Your task to perform on an android device: allow notifications from all sites in the chrome app Image 0: 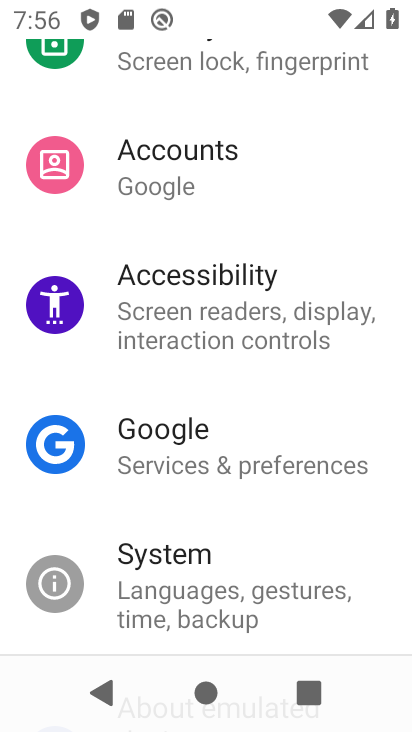
Step 0: press home button
Your task to perform on an android device: allow notifications from all sites in the chrome app Image 1: 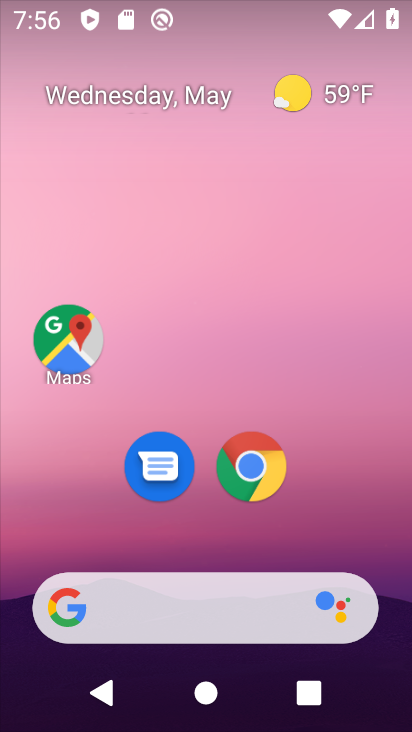
Step 1: drag from (329, 510) to (349, 168)
Your task to perform on an android device: allow notifications from all sites in the chrome app Image 2: 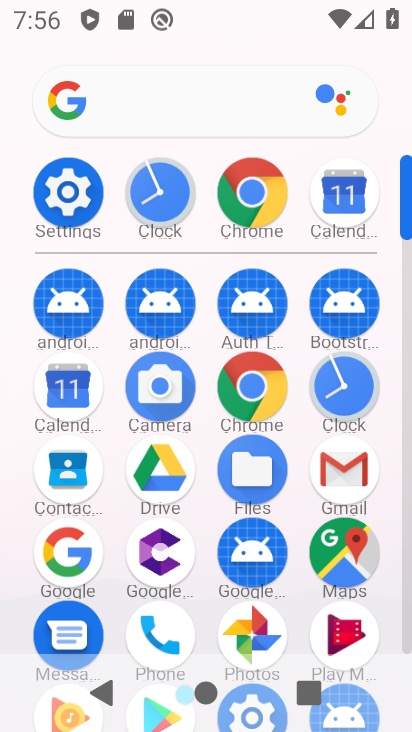
Step 2: click (238, 187)
Your task to perform on an android device: allow notifications from all sites in the chrome app Image 3: 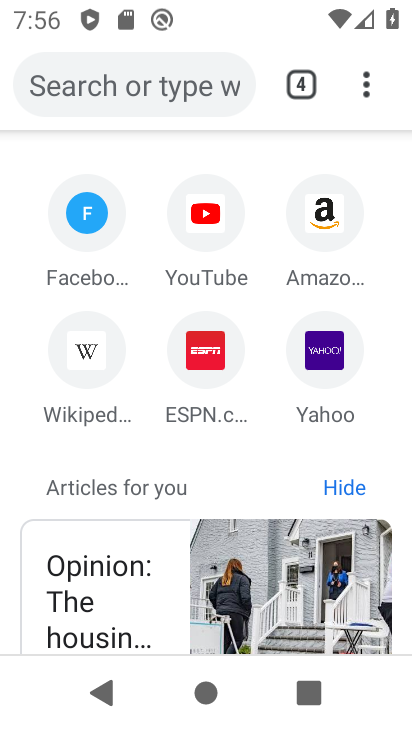
Step 3: click (353, 92)
Your task to perform on an android device: allow notifications from all sites in the chrome app Image 4: 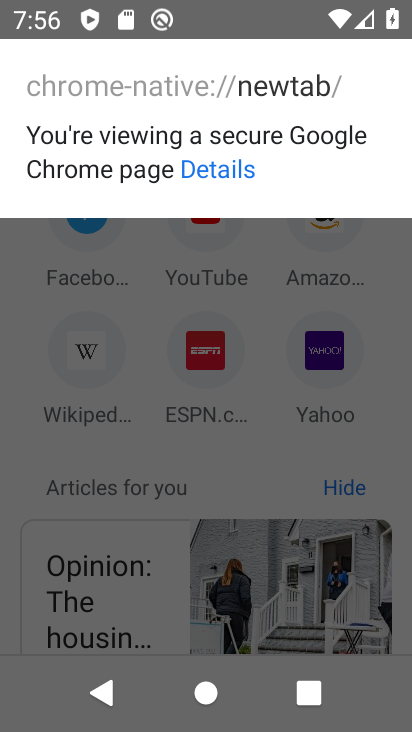
Step 4: press back button
Your task to perform on an android device: allow notifications from all sites in the chrome app Image 5: 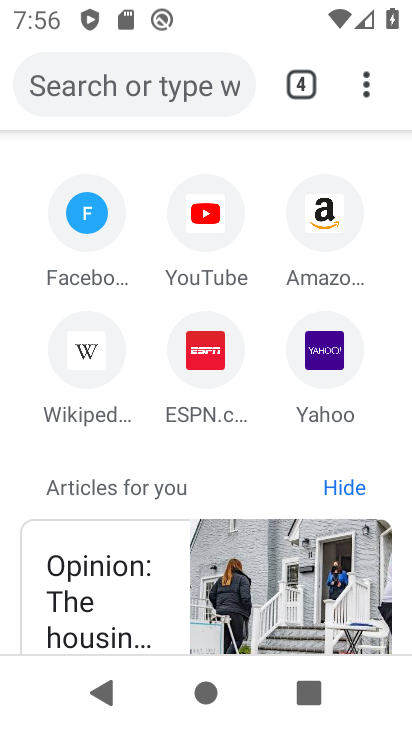
Step 5: click (332, 71)
Your task to perform on an android device: allow notifications from all sites in the chrome app Image 6: 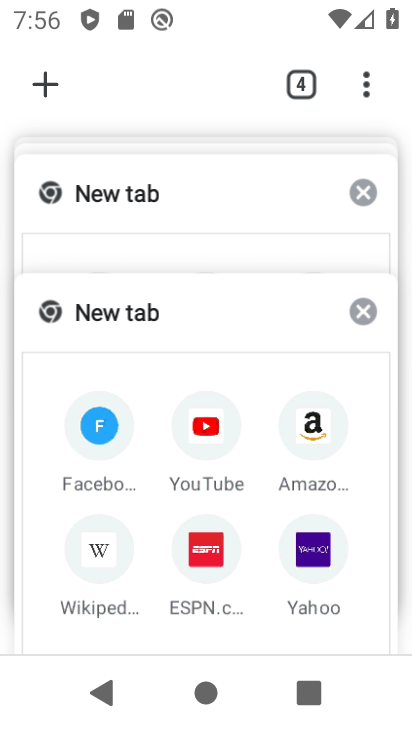
Step 6: click (339, 88)
Your task to perform on an android device: allow notifications from all sites in the chrome app Image 7: 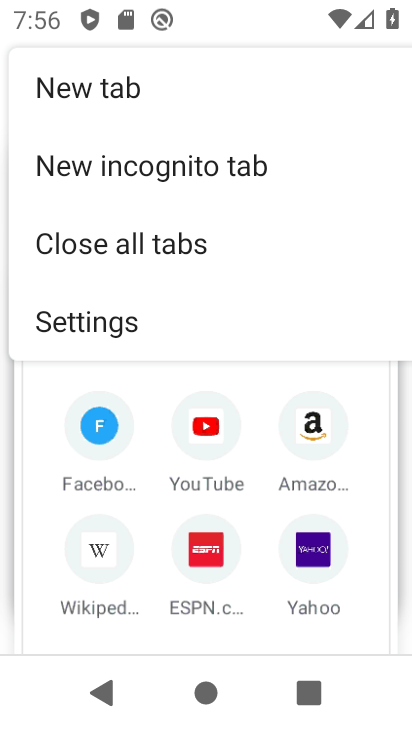
Step 7: click (124, 314)
Your task to perform on an android device: allow notifications from all sites in the chrome app Image 8: 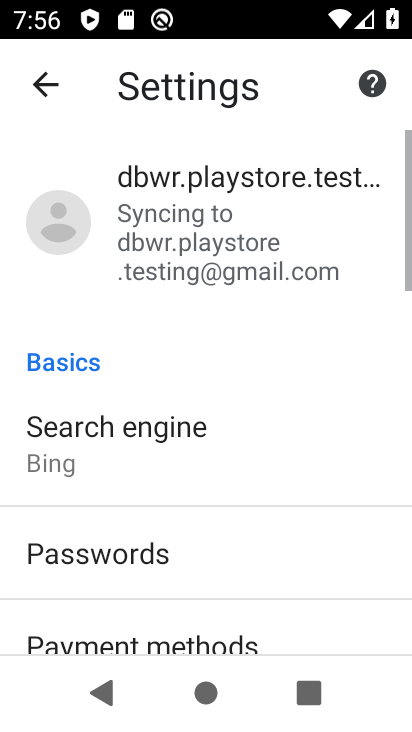
Step 8: drag from (219, 550) to (298, 114)
Your task to perform on an android device: allow notifications from all sites in the chrome app Image 9: 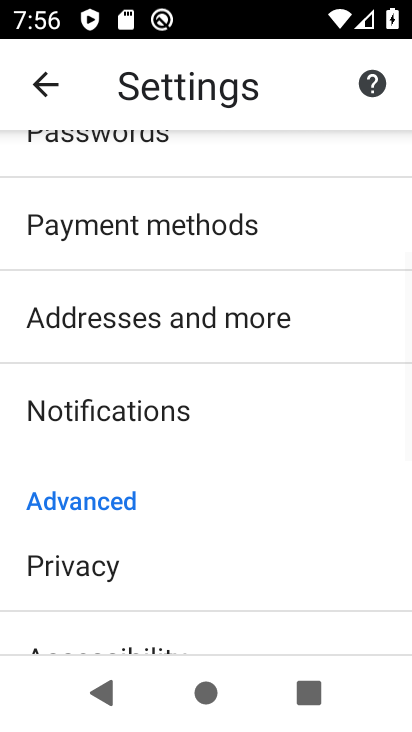
Step 9: drag from (190, 501) to (272, 131)
Your task to perform on an android device: allow notifications from all sites in the chrome app Image 10: 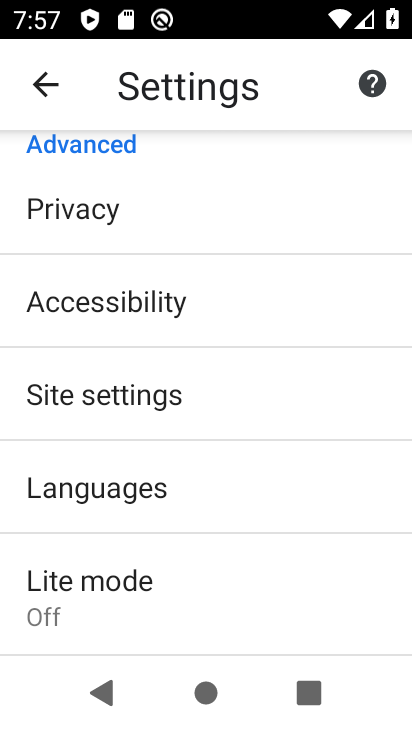
Step 10: click (128, 400)
Your task to perform on an android device: allow notifications from all sites in the chrome app Image 11: 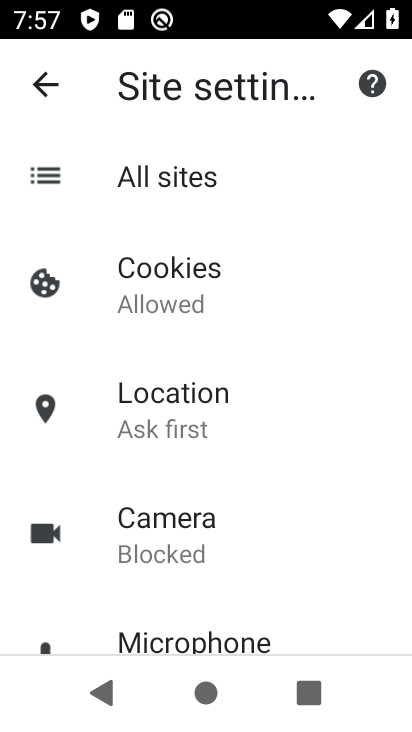
Step 11: click (180, 283)
Your task to perform on an android device: allow notifications from all sites in the chrome app Image 12: 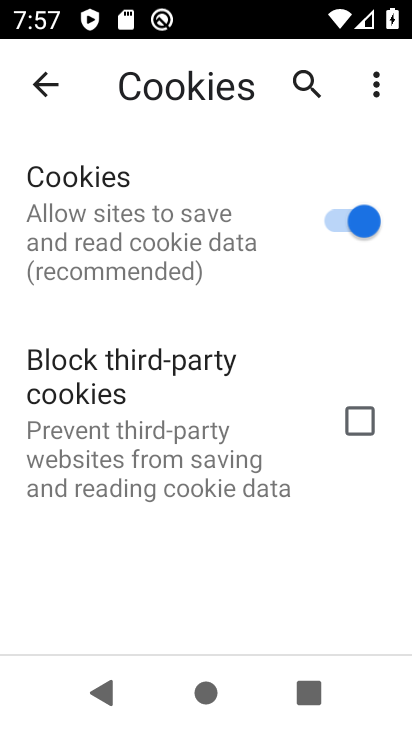
Step 12: click (35, 74)
Your task to perform on an android device: allow notifications from all sites in the chrome app Image 13: 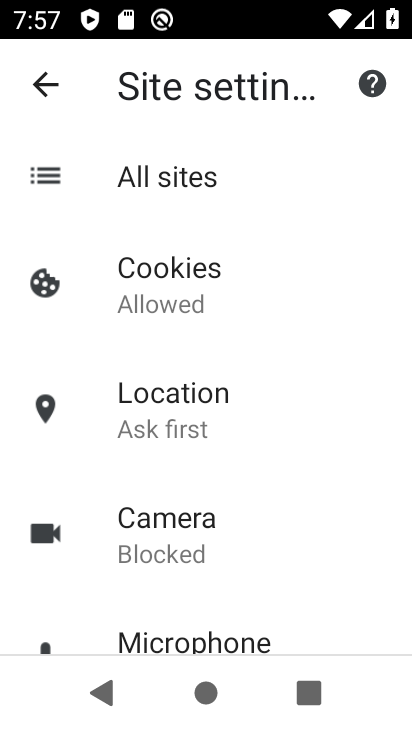
Step 13: click (188, 394)
Your task to perform on an android device: allow notifications from all sites in the chrome app Image 14: 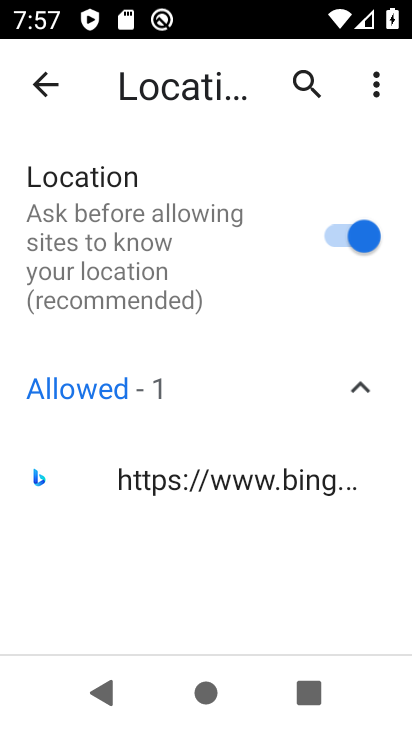
Step 14: click (36, 87)
Your task to perform on an android device: allow notifications from all sites in the chrome app Image 15: 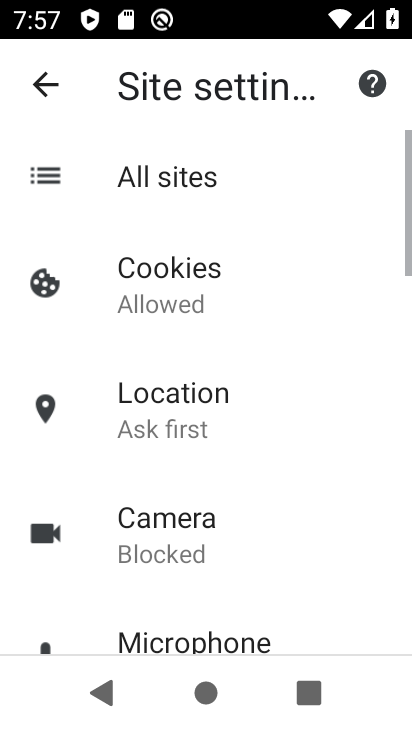
Step 15: task complete